Your task to perform on an android device: Search for "razer blackwidow" on ebay, select the first entry, and add it to the cart. Image 0: 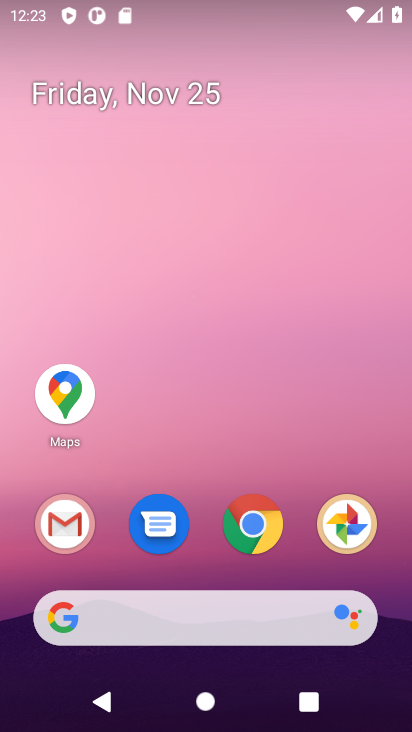
Step 0: click (247, 528)
Your task to perform on an android device: Search for "razer blackwidow" on ebay, select the first entry, and add it to the cart. Image 1: 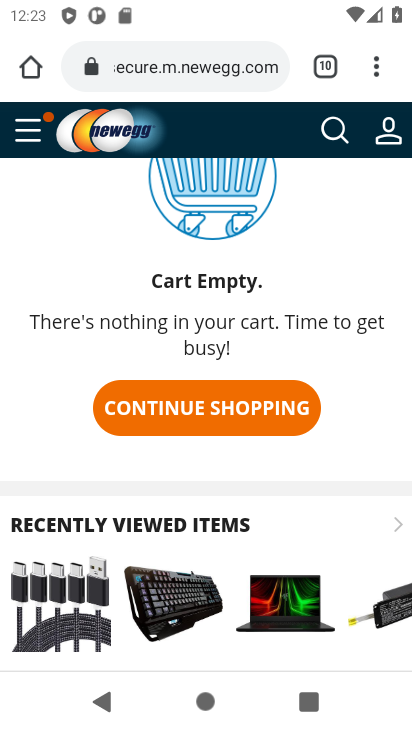
Step 1: click (123, 64)
Your task to perform on an android device: Search for "razer blackwidow" on ebay, select the first entry, and add it to the cart. Image 2: 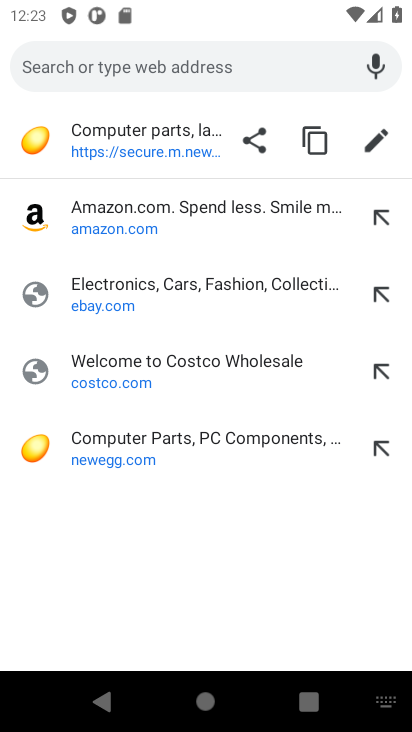
Step 2: click (105, 298)
Your task to perform on an android device: Search for "razer blackwidow" on ebay, select the first entry, and add it to the cart. Image 3: 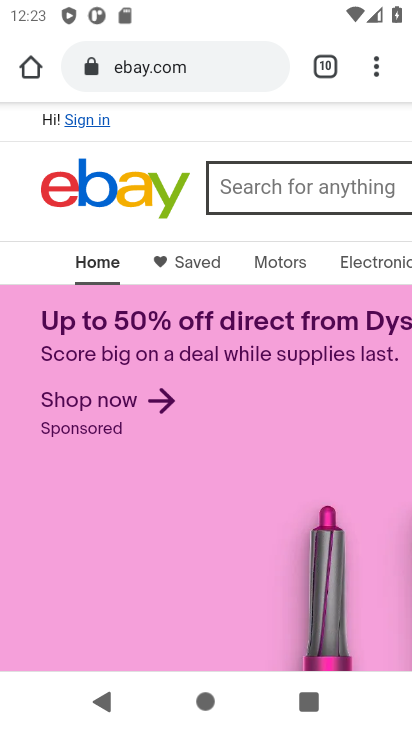
Step 3: click (286, 185)
Your task to perform on an android device: Search for "razer blackwidow" on ebay, select the first entry, and add it to the cart. Image 4: 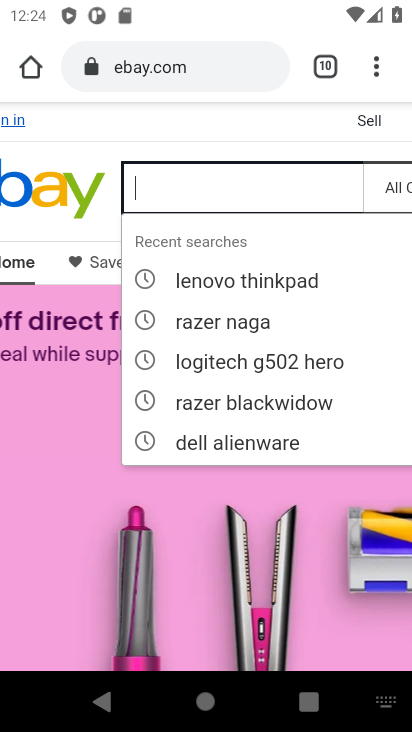
Step 4: type "razer blackwidow"
Your task to perform on an android device: Search for "razer blackwidow" on ebay, select the first entry, and add it to the cart. Image 5: 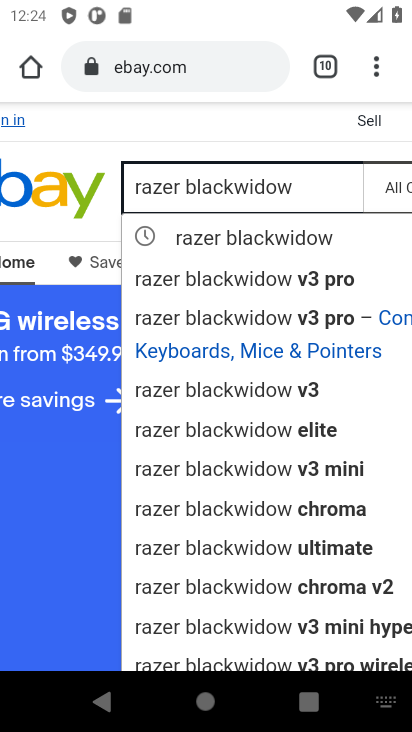
Step 5: click (254, 236)
Your task to perform on an android device: Search for "razer blackwidow" on ebay, select the first entry, and add it to the cart. Image 6: 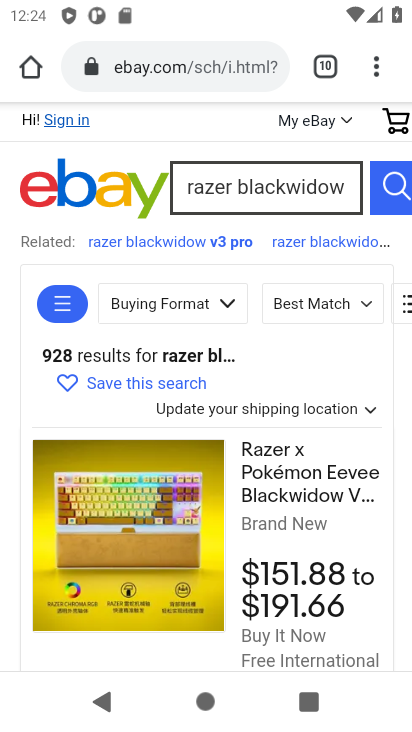
Step 6: click (262, 495)
Your task to perform on an android device: Search for "razer blackwidow" on ebay, select the first entry, and add it to the cart. Image 7: 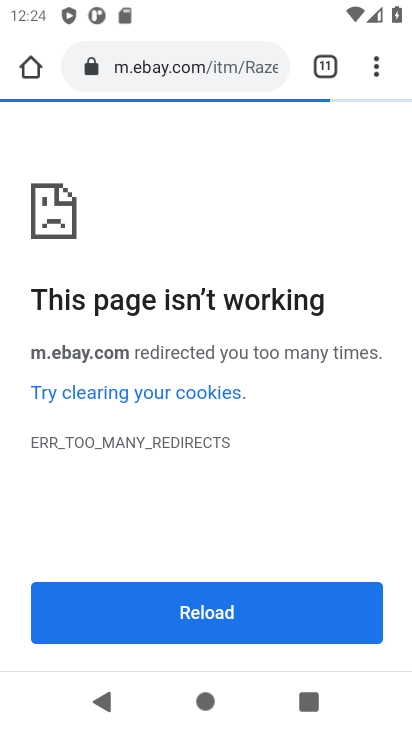
Step 7: task complete